Your task to perform on an android device: Is it going to rain this weekend? Image 0: 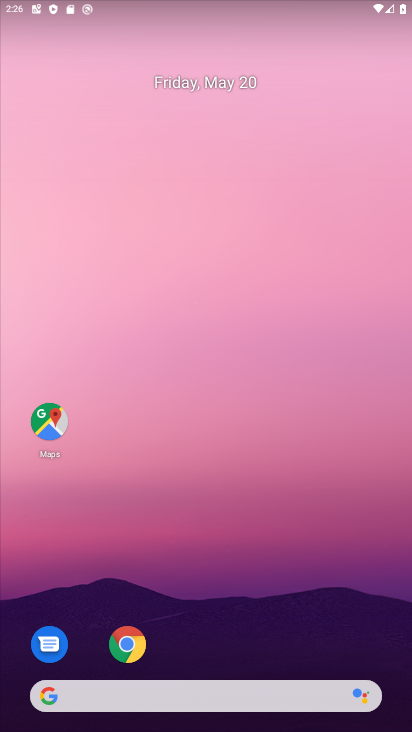
Step 0: drag from (11, 311) to (411, 216)
Your task to perform on an android device: Is it going to rain this weekend? Image 1: 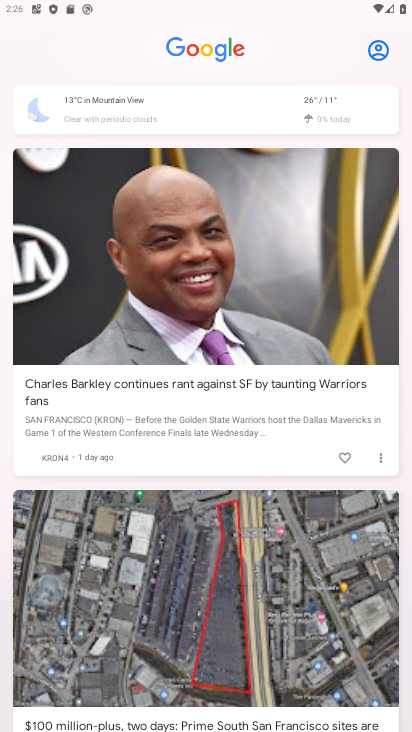
Step 1: click (309, 107)
Your task to perform on an android device: Is it going to rain this weekend? Image 2: 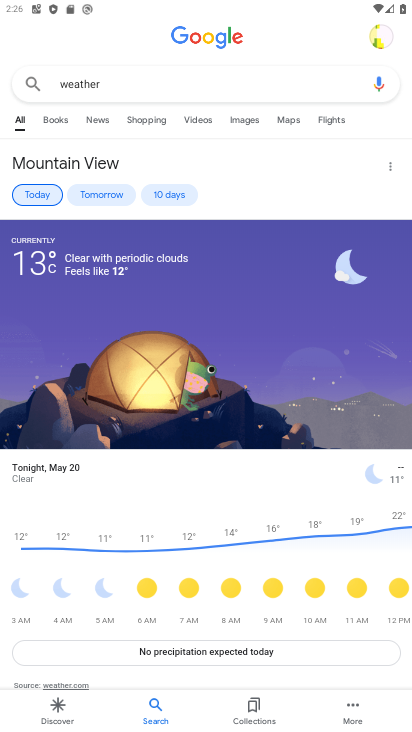
Step 2: click (159, 192)
Your task to perform on an android device: Is it going to rain this weekend? Image 3: 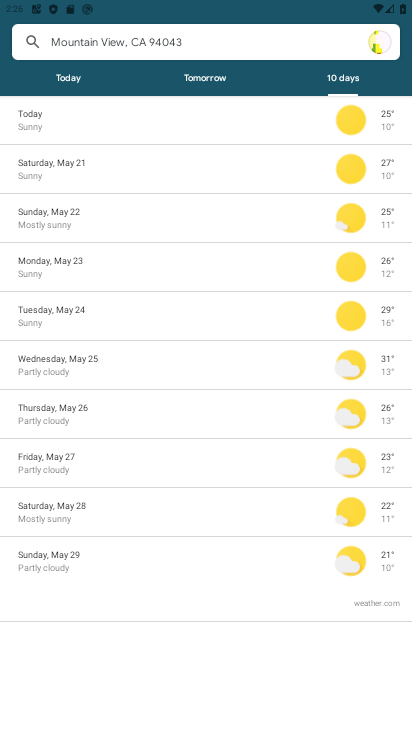
Step 3: task complete